Your task to perform on an android device: set the stopwatch Image 0: 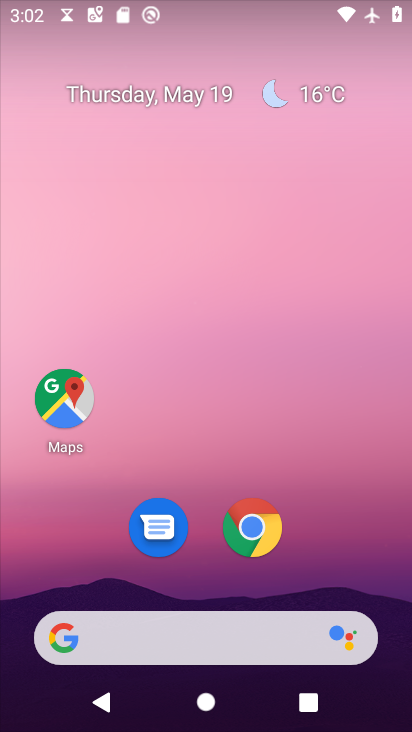
Step 0: drag from (375, 538) to (238, 2)
Your task to perform on an android device: set the stopwatch Image 1: 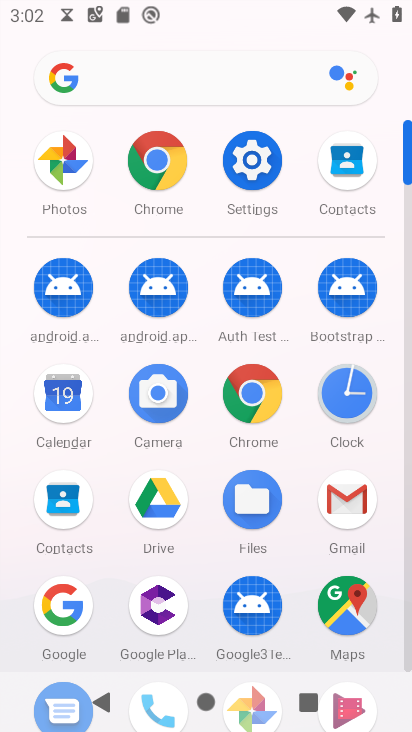
Step 1: click (83, 602)
Your task to perform on an android device: set the stopwatch Image 2: 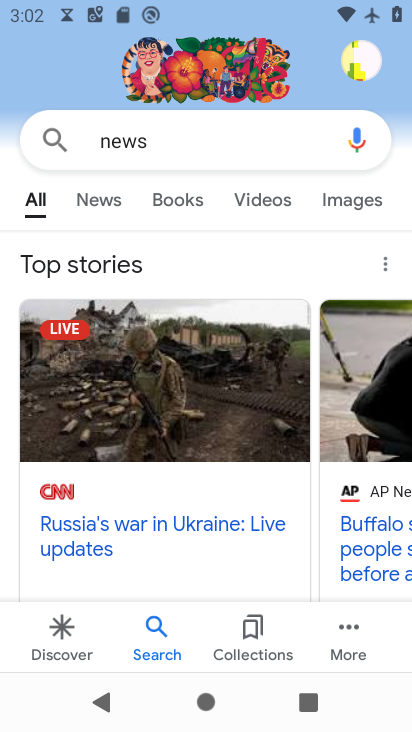
Step 2: press back button
Your task to perform on an android device: set the stopwatch Image 3: 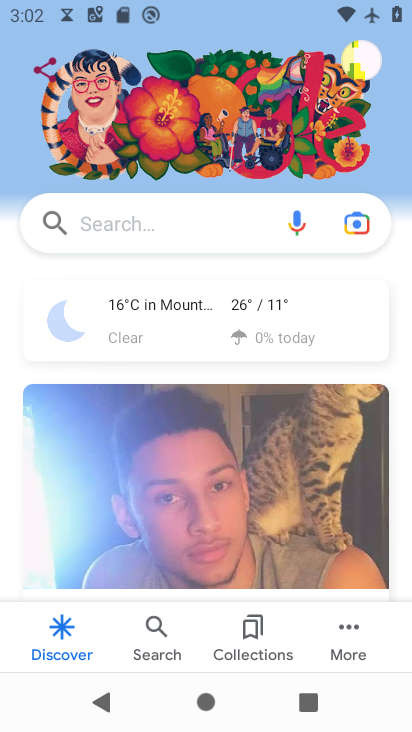
Step 3: press back button
Your task to perform on an android device: set the stopwatch Image 4: 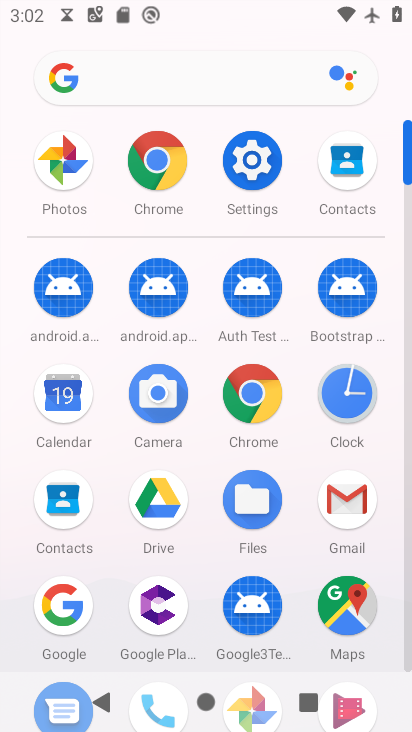
Step 4: click (366, 387)
Your task to perform on an android device: set the stopwatch Image 5: 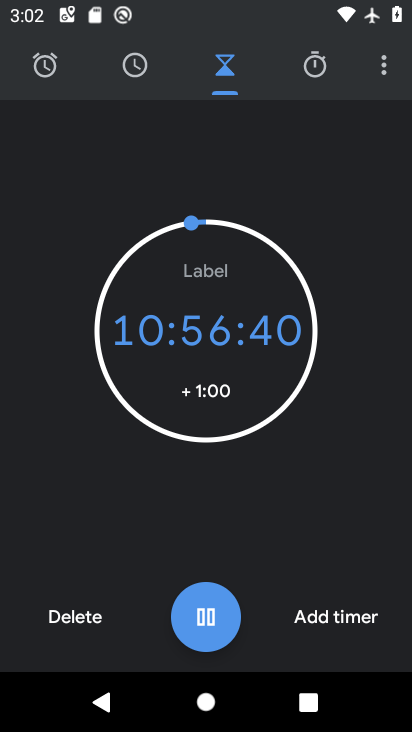
Step 5: click (318, 74)
Your task to perform on an android device: set the stopwatch Image 6: 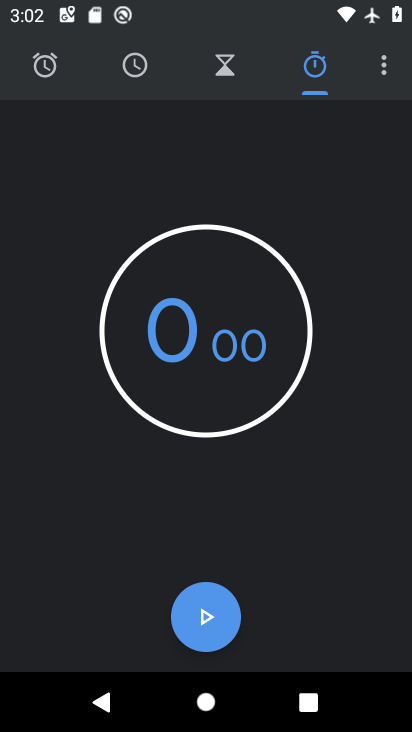
Step 6: click (212, 614)
Your task to perform on an android device: set the stopwatch Image 7: 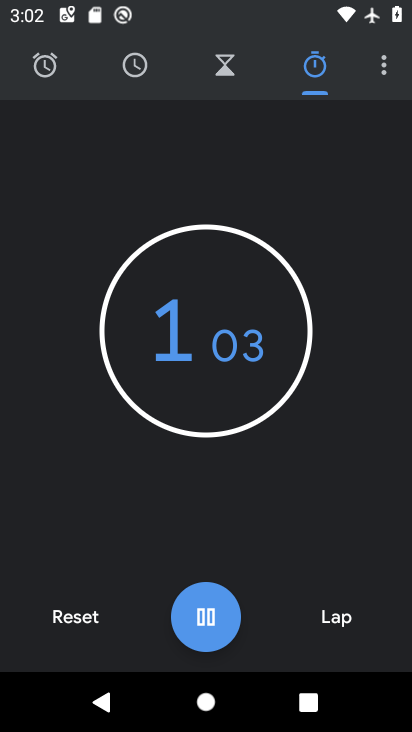
Step 7: task complete